Your task to perform on an android device: set default search engine in the chrome app Image 0: 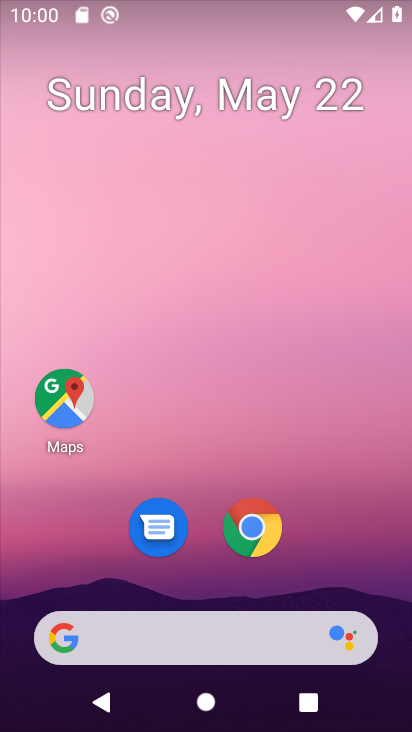
Step 0: click (264, 531)
Your task to perform on an android device: set default search engine in the chrome app Image 1: 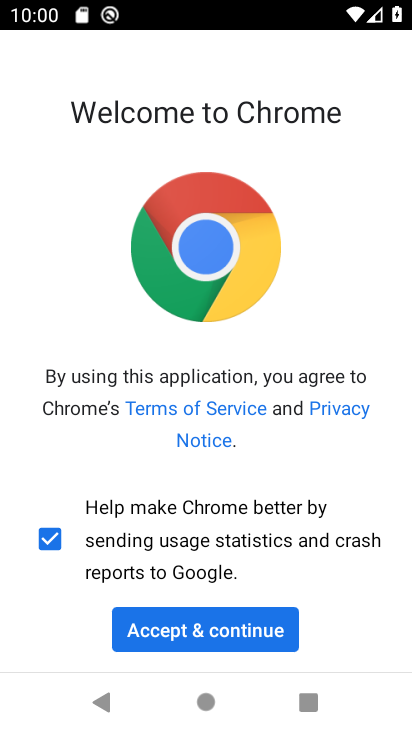
Step 1: click (212, 637)
Your task to perform on an android device: set default search engine in the chrome app Image 2: 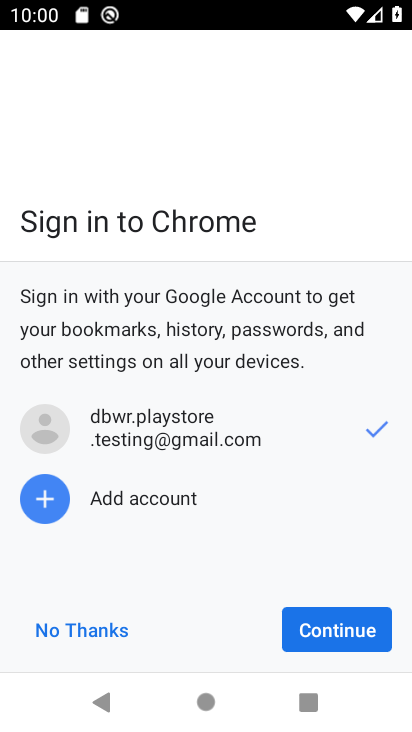
Step 2: click (359, 634)
Your task to perform on an android device: set default search engine in the chrome app Image 3: 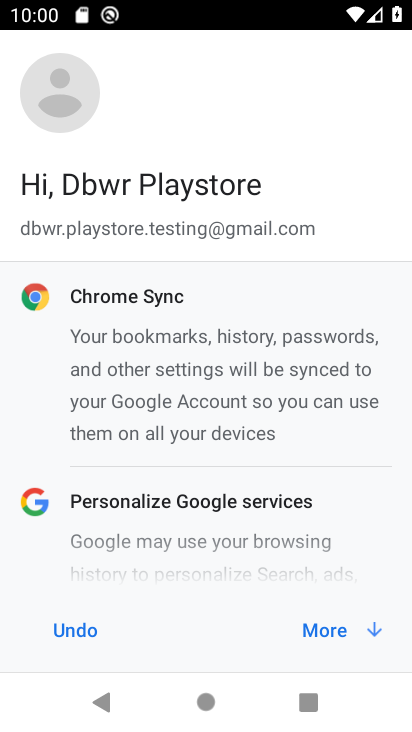
Step 3: click (363, 631)
Your task to perform on an android device: set default search engine in the chrome app Image 4: 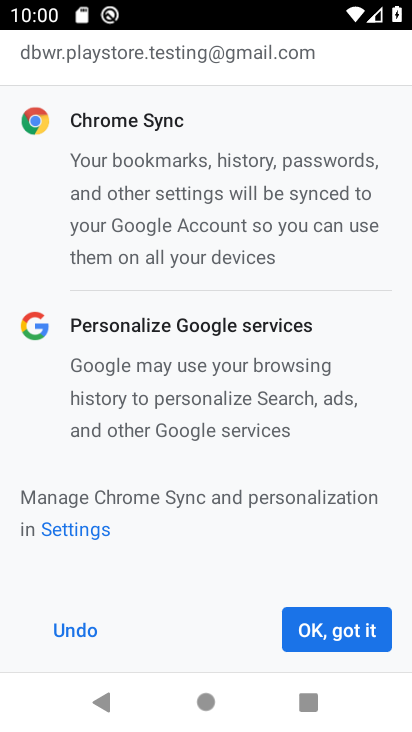
Step 4: click (330, 636)
Your task to perform on an android device: set default search engine in the chrome app Image 5: 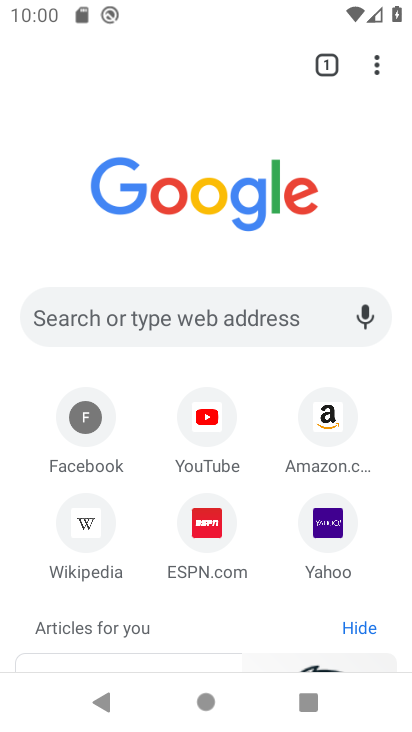
Step 5: click (384, 74)
Your task to perform on an android device: set default search engine in the chrome app Image 6: 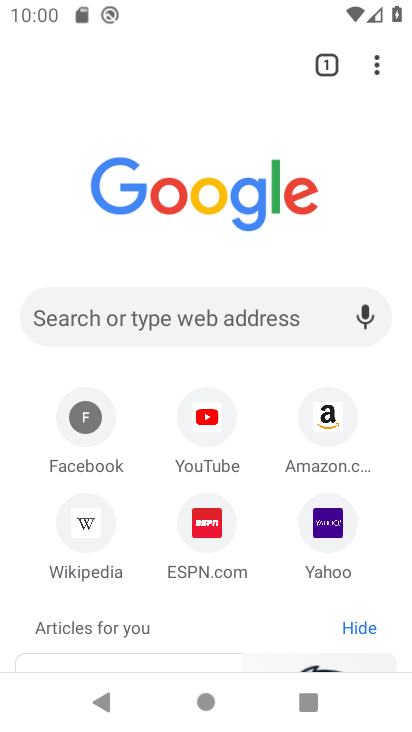
Step 6: click (385, 74)
Your task to perform on an android device: set default search engine in the chrome app Image 7: 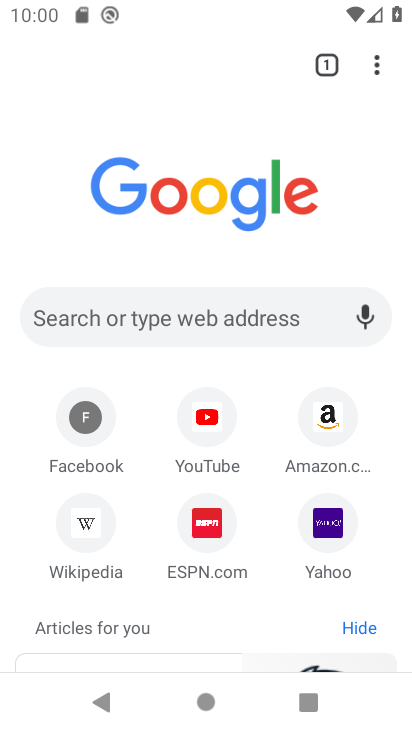
Step 7: click (385, 74)
Your task to perform on an android device: set default search engine in the chrome app Image 8: 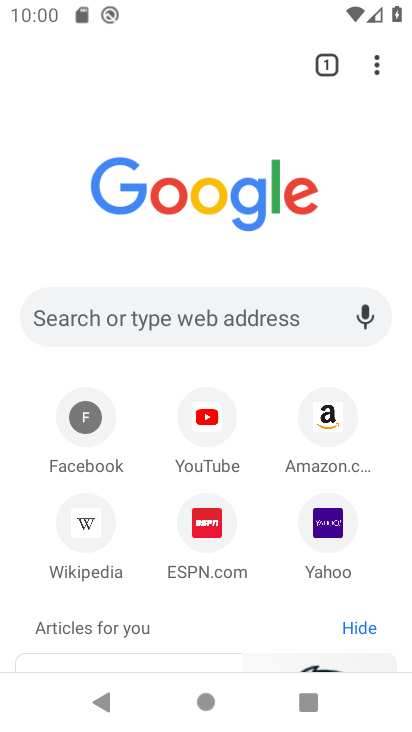
Step 8: click (391, 76)
Your task to perform on an android device: set default search engine in the chrome app Image 9: 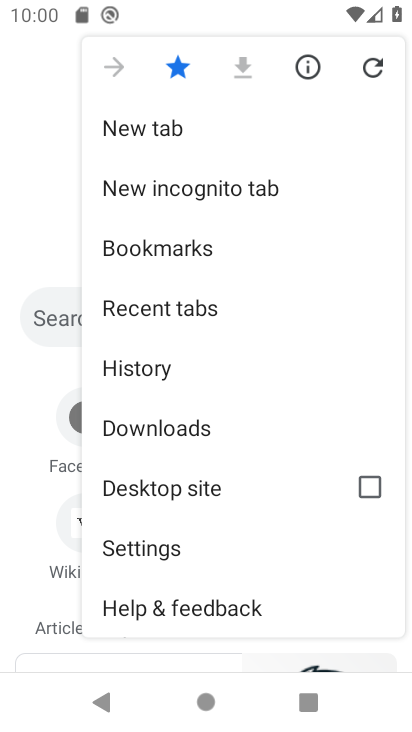
Step 9: click (393, 76)
Your task to perform on an android device: set default search engine in the chrome app Image 10: 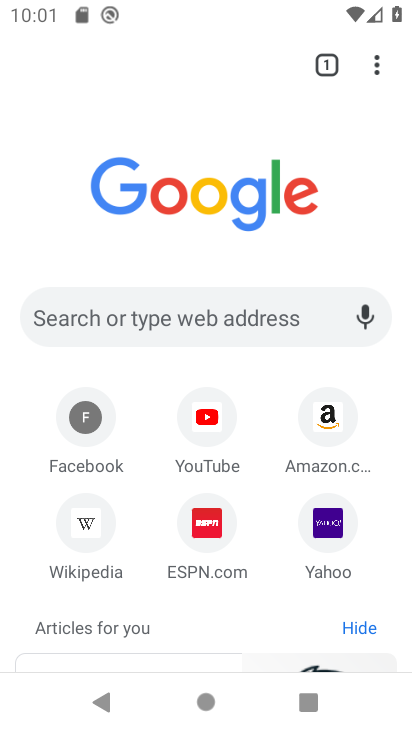
Step 10: task complete